Your task to perform on an android device: change the upload size in google photos Image 0: 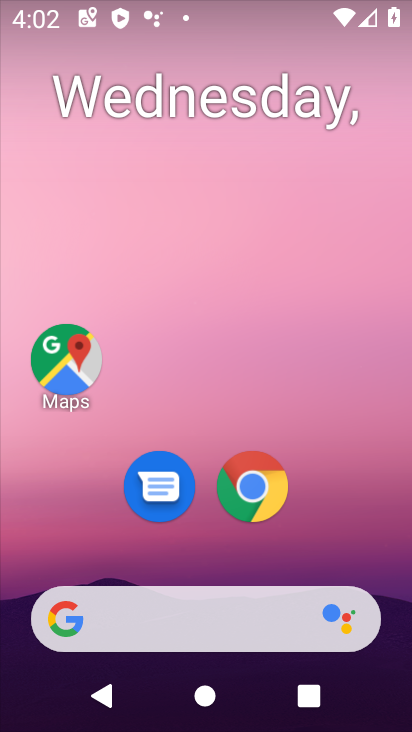
Step 0: drag from (228, 589) to (381, 78)
Your task to perform on an android device: change the upload size in google photos Image 1: 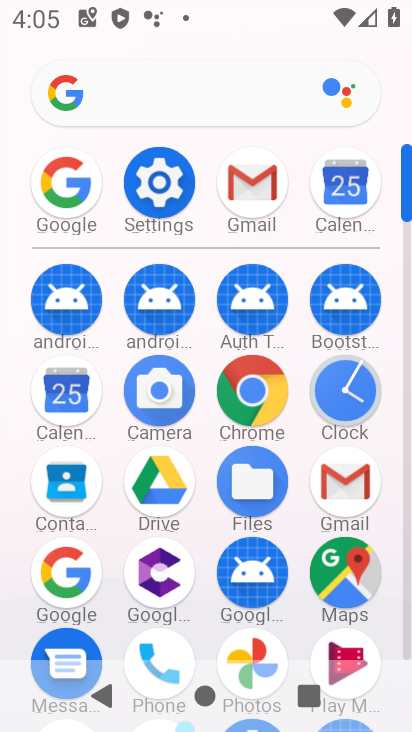
Step 1: click (250, 654)
Your task to perform on an android device: change the upload size in google photos Image 2: 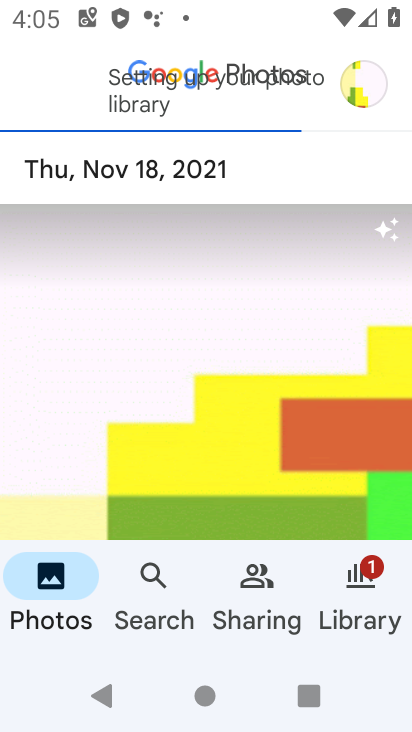
Step 2: click (350, 95)
Your task to perform on an android device: change the upload size in google photos Image 3: 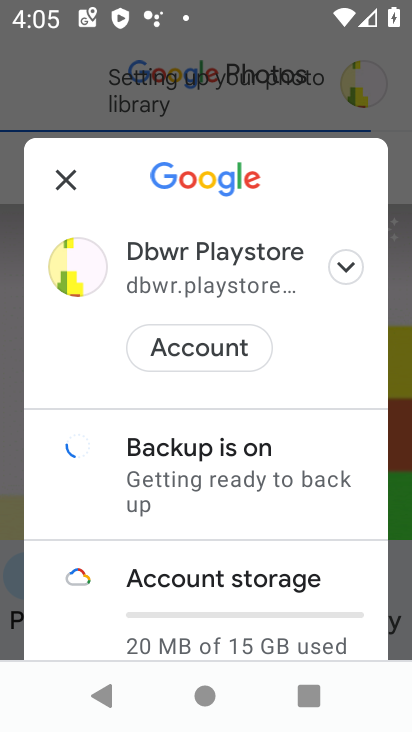
Step 3: drag from (288, 626) to (260, 363)
Your task to perform on an android device: change the upload size in google photos Image 4: 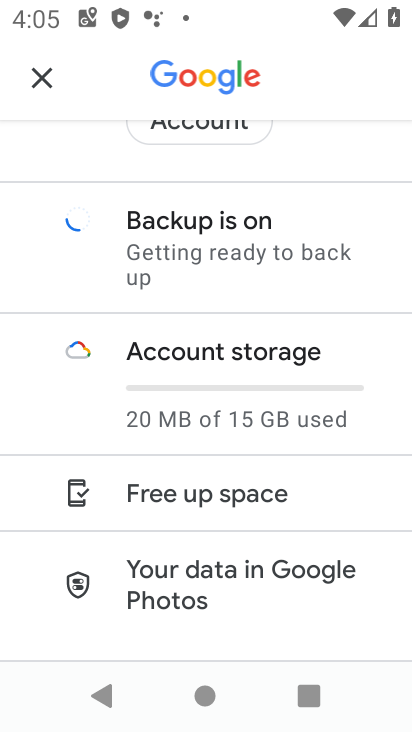
Step 4: click (228, 249)
Your task to perform on an android device: change the upload size in google photos Image 5: 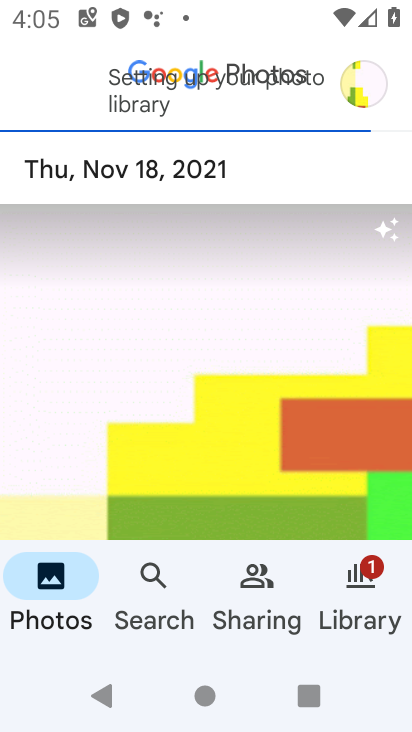
Step 5: click (341, 90)
Your task to perform on an android device: change the upload size in google photos Image 6: 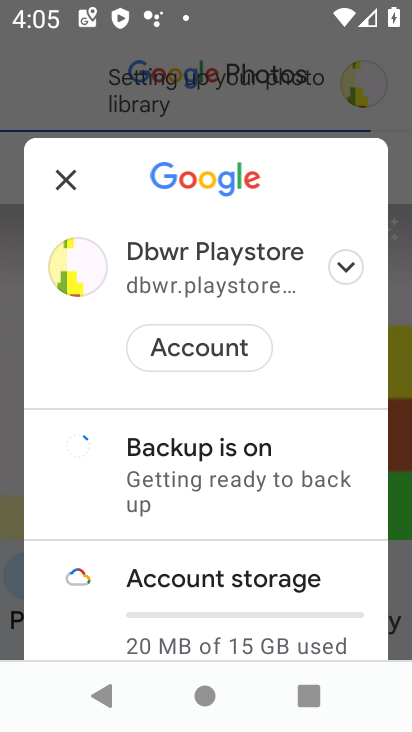
Step 6: drag from (253, 619) to (219, 327)
Your task to perform on an android device: change the upload size in google photos Image 7: 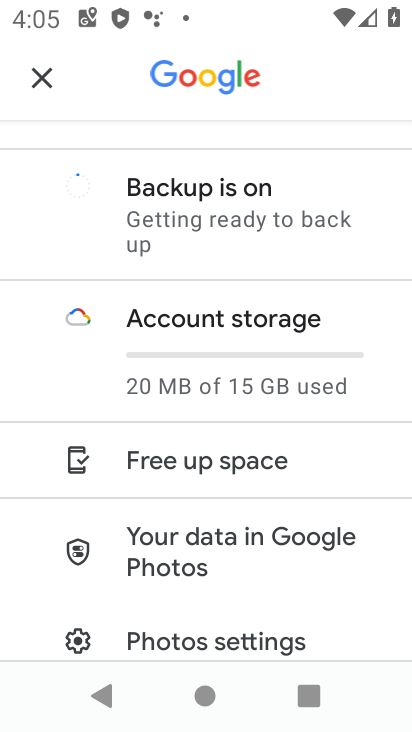
Step 7: drag from (259, 617) to (255, 340)
Your task to perform on an android device: change the upload size in google photos Image 8: 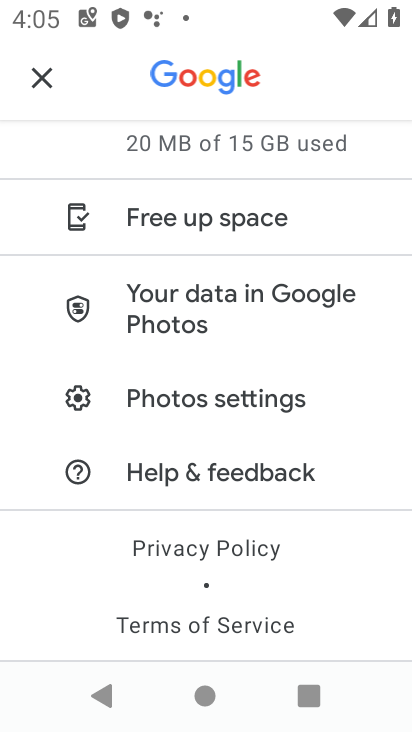
Step 8: click (219, 402)
Your task to perform on an android device: change the upload size in google photos Image 9: 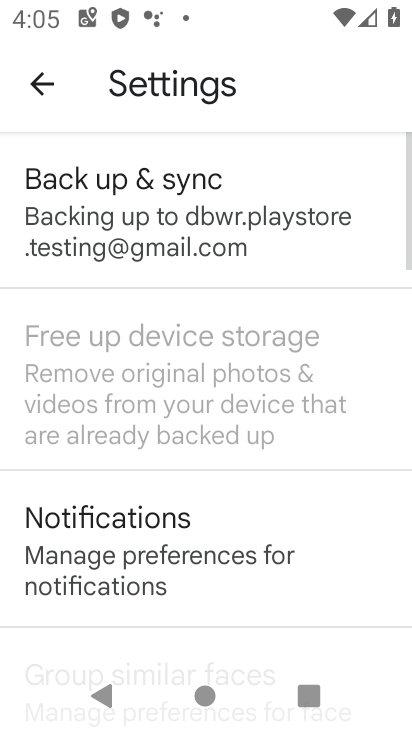
Step 9: click (249, 214)
Your task to perform on an android device: change the upload size in google photos Image 10: 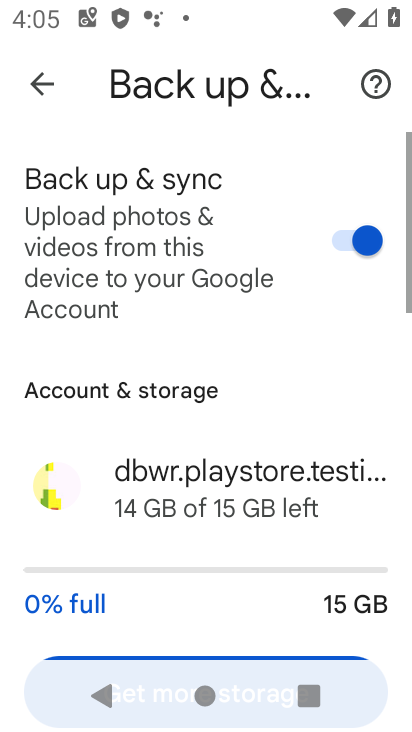
Step 10: drag from (221, 610) to (214, 267)
Your task to perform on an android device: change the upload size in google photos Image 11: 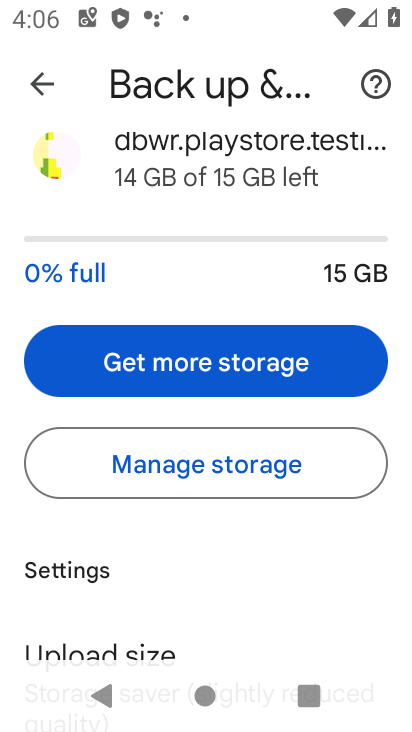
Step 11: drag from (202, 577) to (202, 258)
Your task to perform on an android device: change the upload size in google photos Image 12: 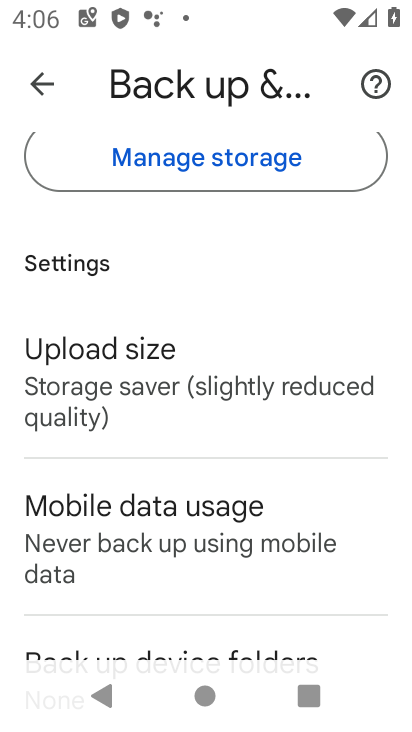
Step 12: click (161, 512)
Your task to perform on an android device: change the upload size in google photos Image 13: 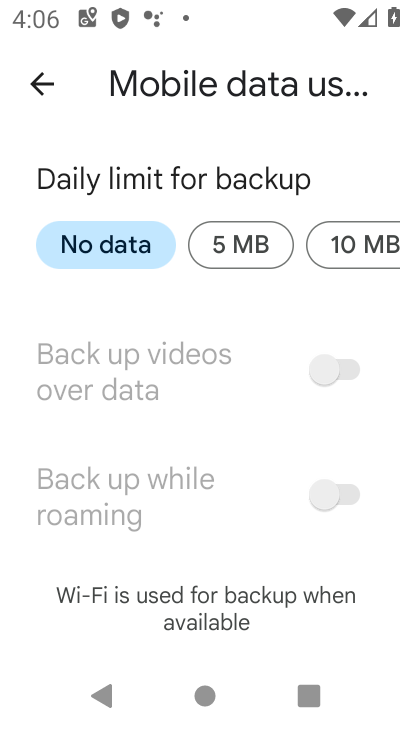
Step 13: click (30, 85)
Your task to perform on an android device: change the upload size in google photos Image 14: 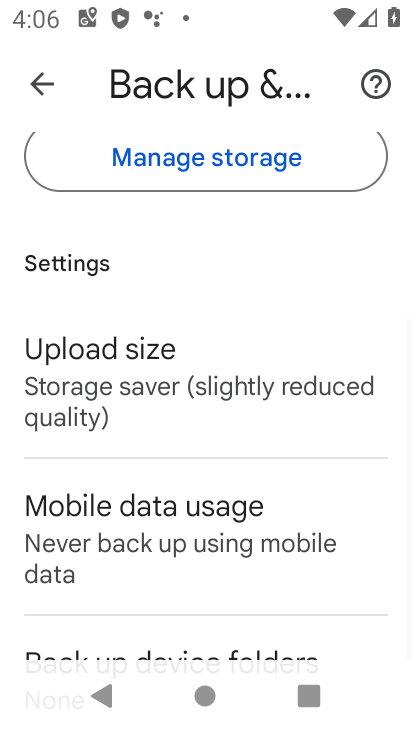
Step 14: click (133, 395)
Your task to perform on an android device: change the upload size in google photos Image 15: 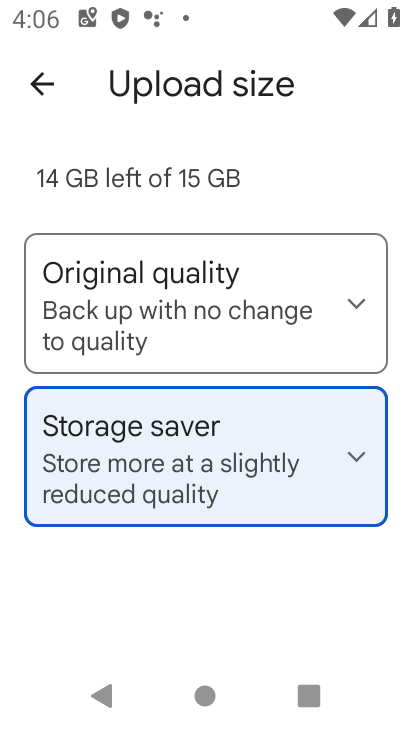
Step 15: click (151, 308)
Your task to perform on an android device: change the upload size in google photos Image 16: 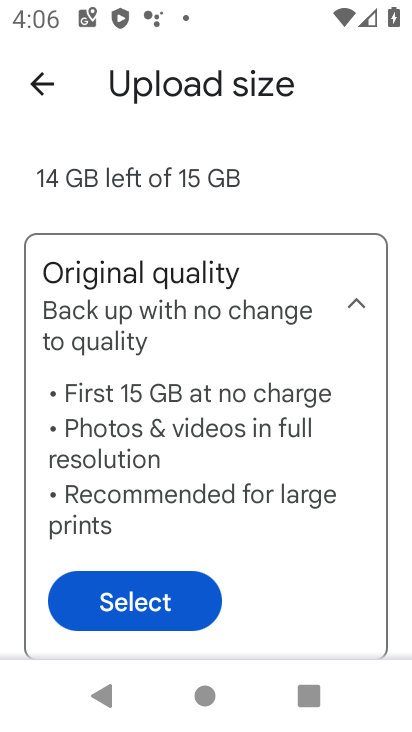
Step 16: click (189, 605)
Your task to perform on an android device: change the upload size in google photos Image 17: 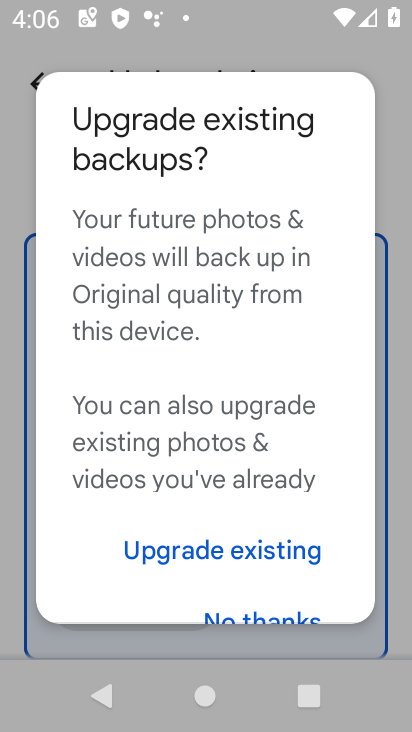
Step 17: drag from (216, 613) to (218, 268)
Your task to perform on an android device: change the upload size in google photos Image 18: 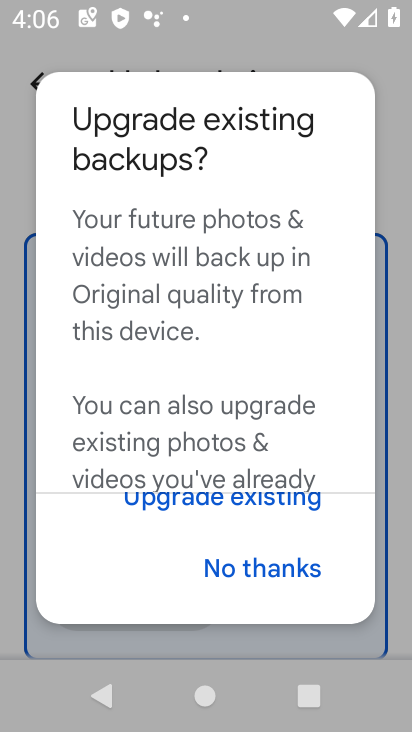
Step 18: click (259, 518)
Your task to perform on an android device: change the upload size in google photos Image 19: 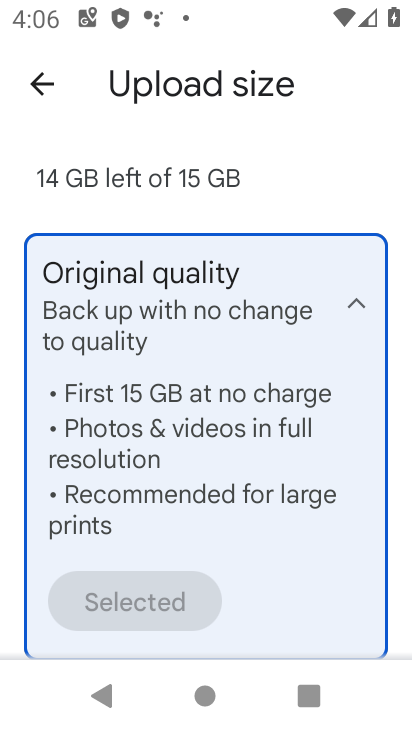
Step 19: task complete